Your task to perform on an android device: Empty the shopping cart on newegg. Image 0: 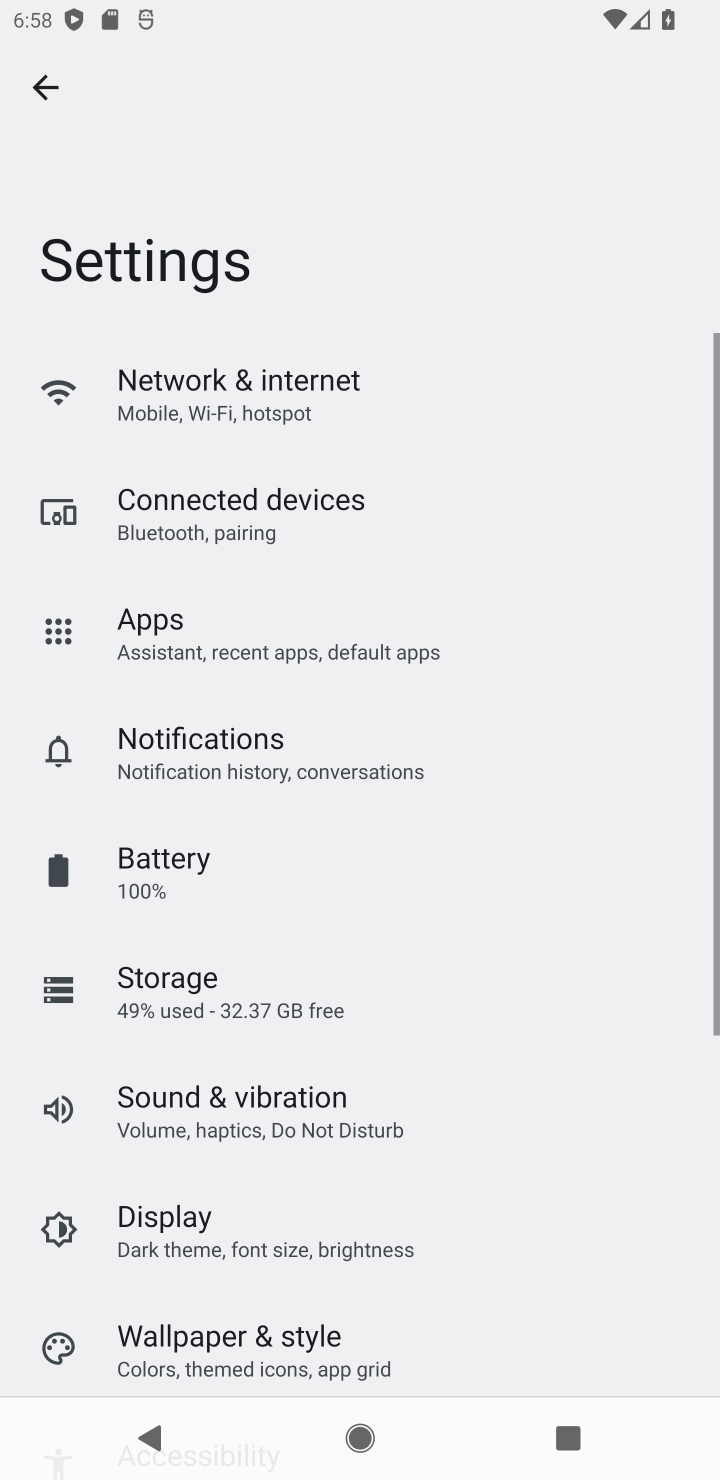
Step 0: press home button
Your task to perform on an android device: Empty the shopping cart on newegg. Image 1: 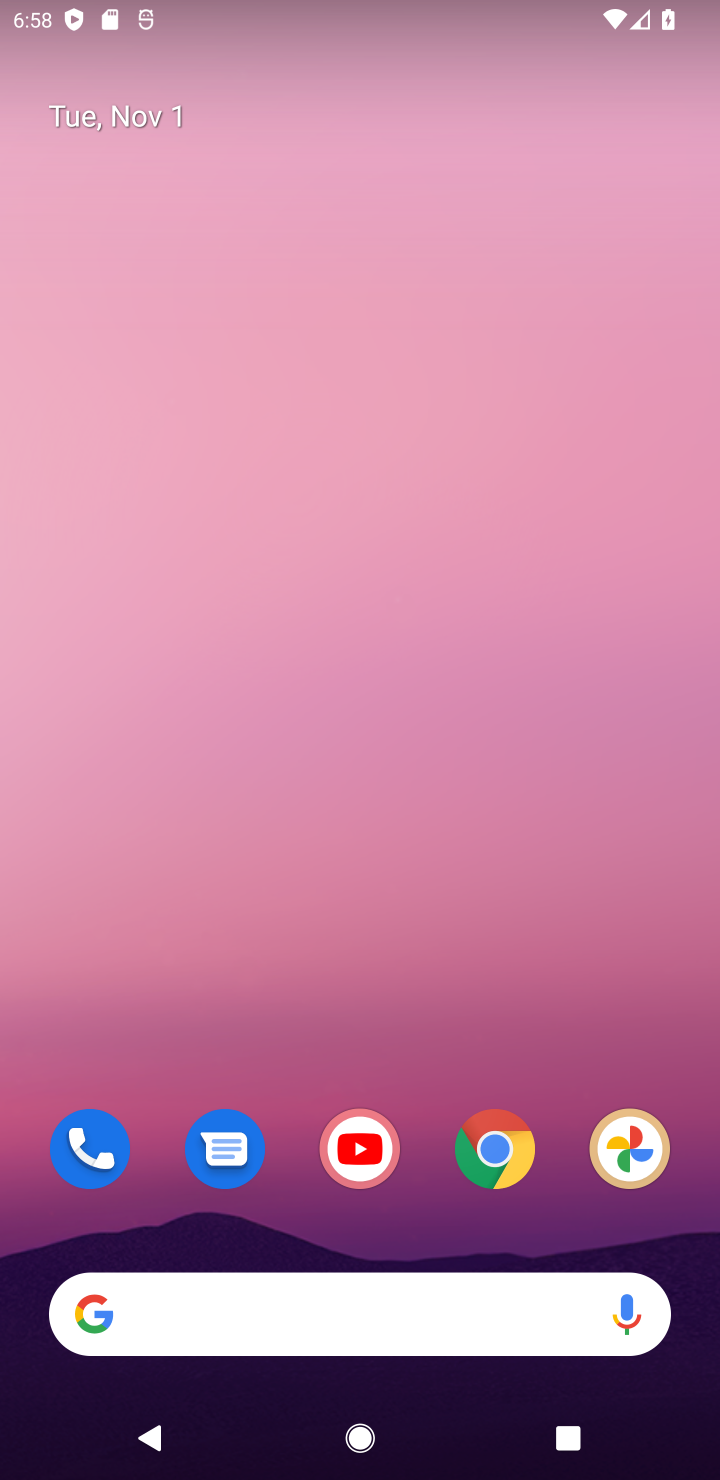
Step 1: drag from (461, 1237) to (486, 448)
Your task to perform on an android device: Empty the shopping cart on newegg. Image 2: 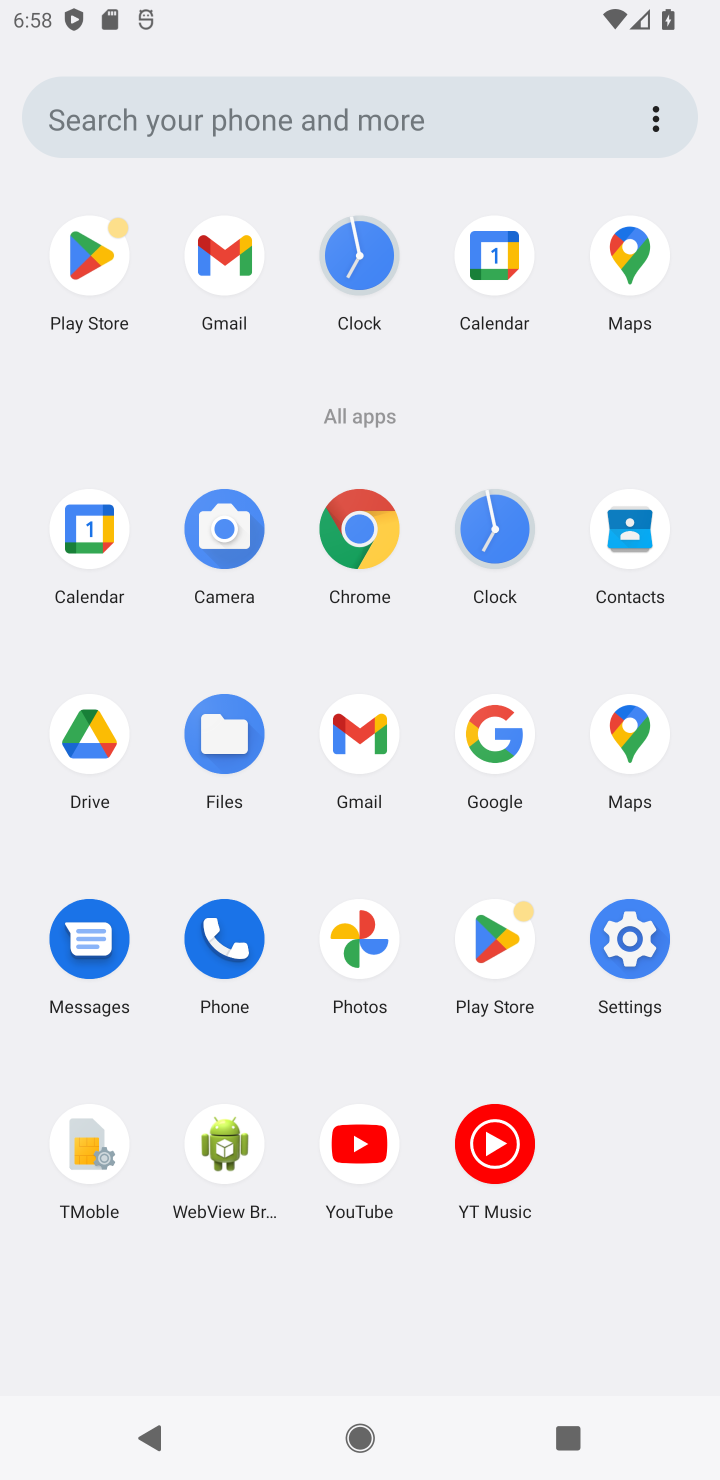
Step 2: click (363, 529)
Your task to perform on an android device: Empty the shopping cart on newegg. Image 3: 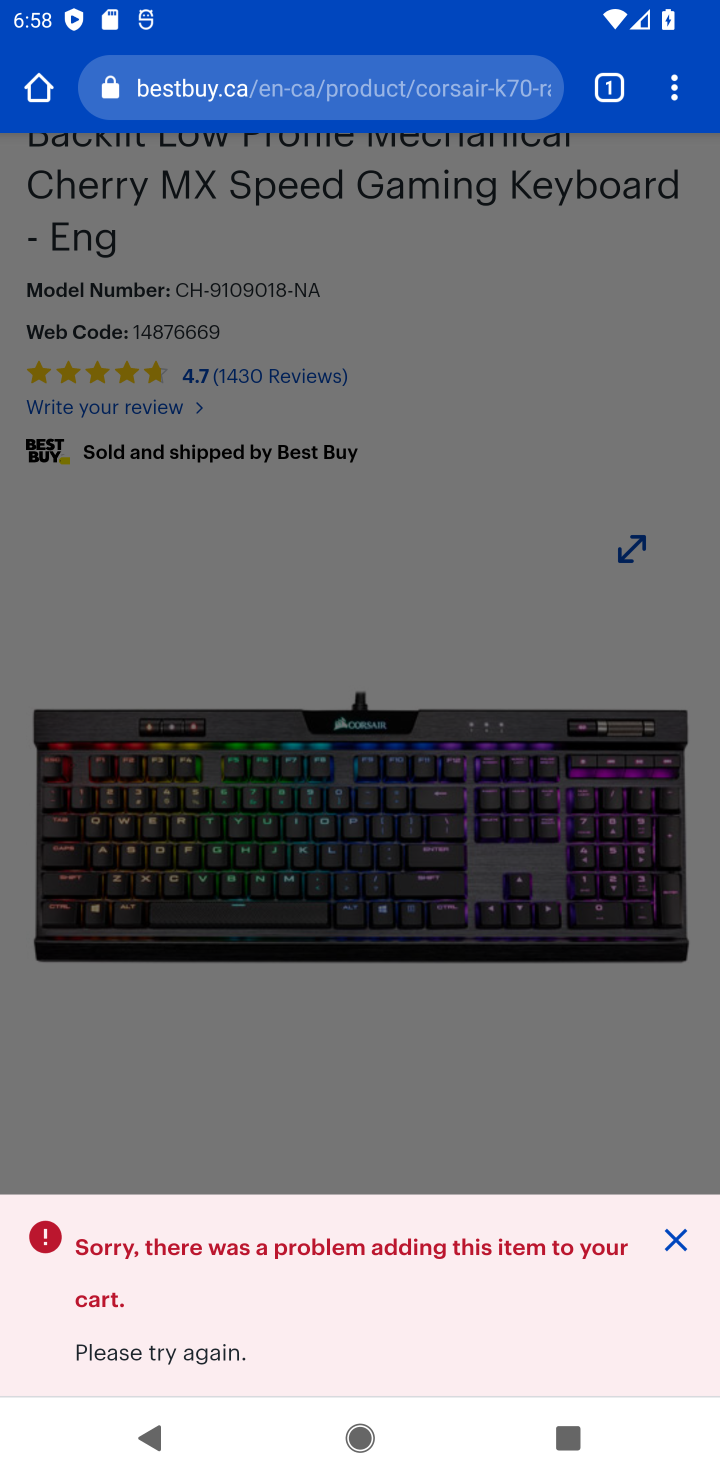
Step 3: click (456, 78)
Your task to perform on an android device: Empty the shopping cart on newegg. Image 4: 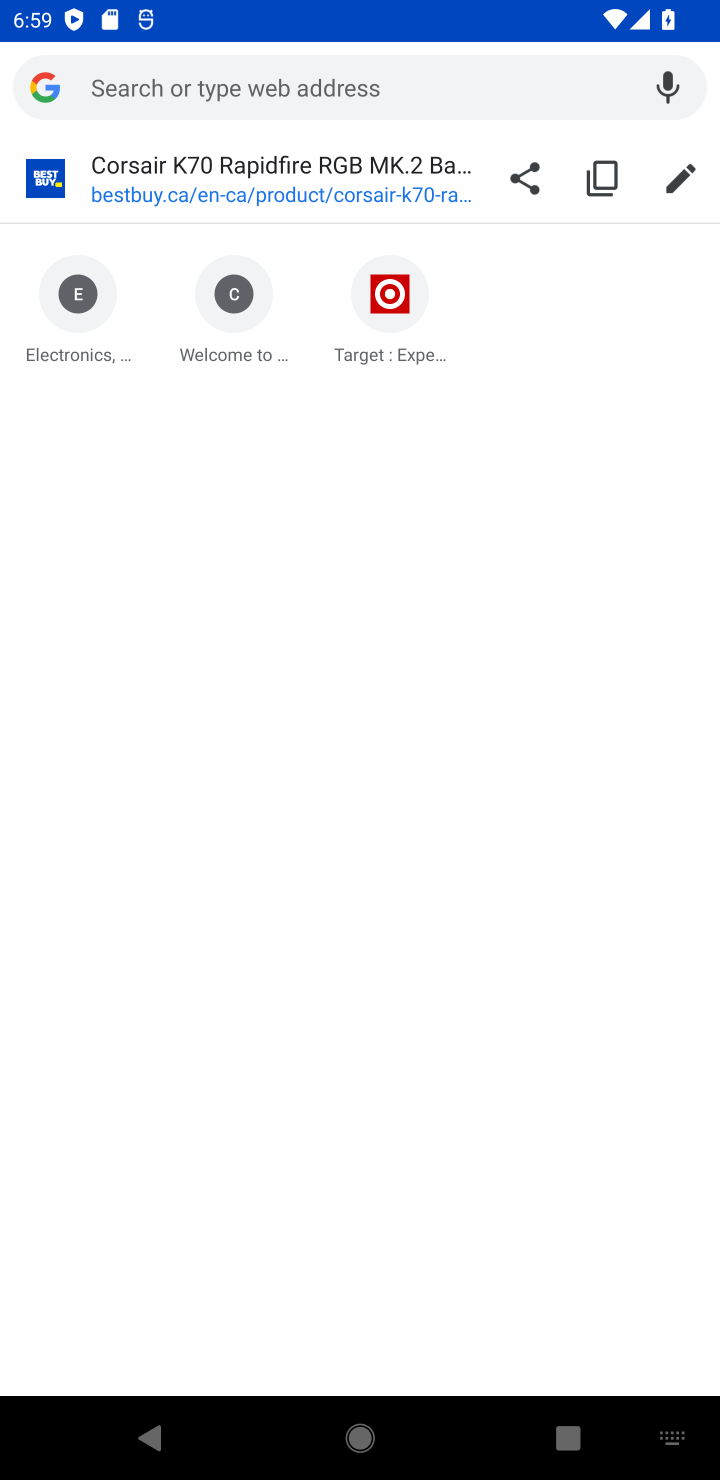
Step 4: type "newegg.com"
Your task to perform on an android device: Empty the shopping cart on newegg. Image 5: 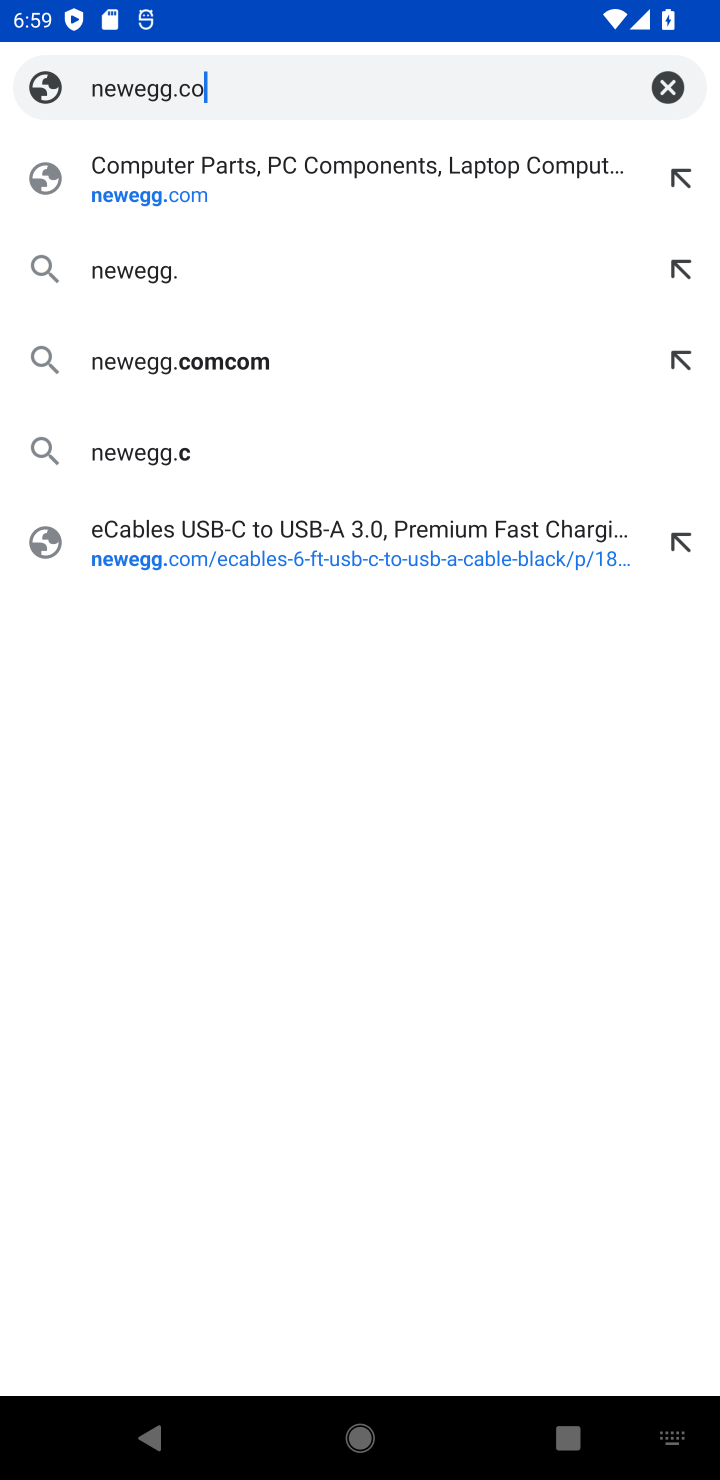
Step 5: press enter
Your task to perform on an android device: Empty the shopping cart on newegg. Image 6: 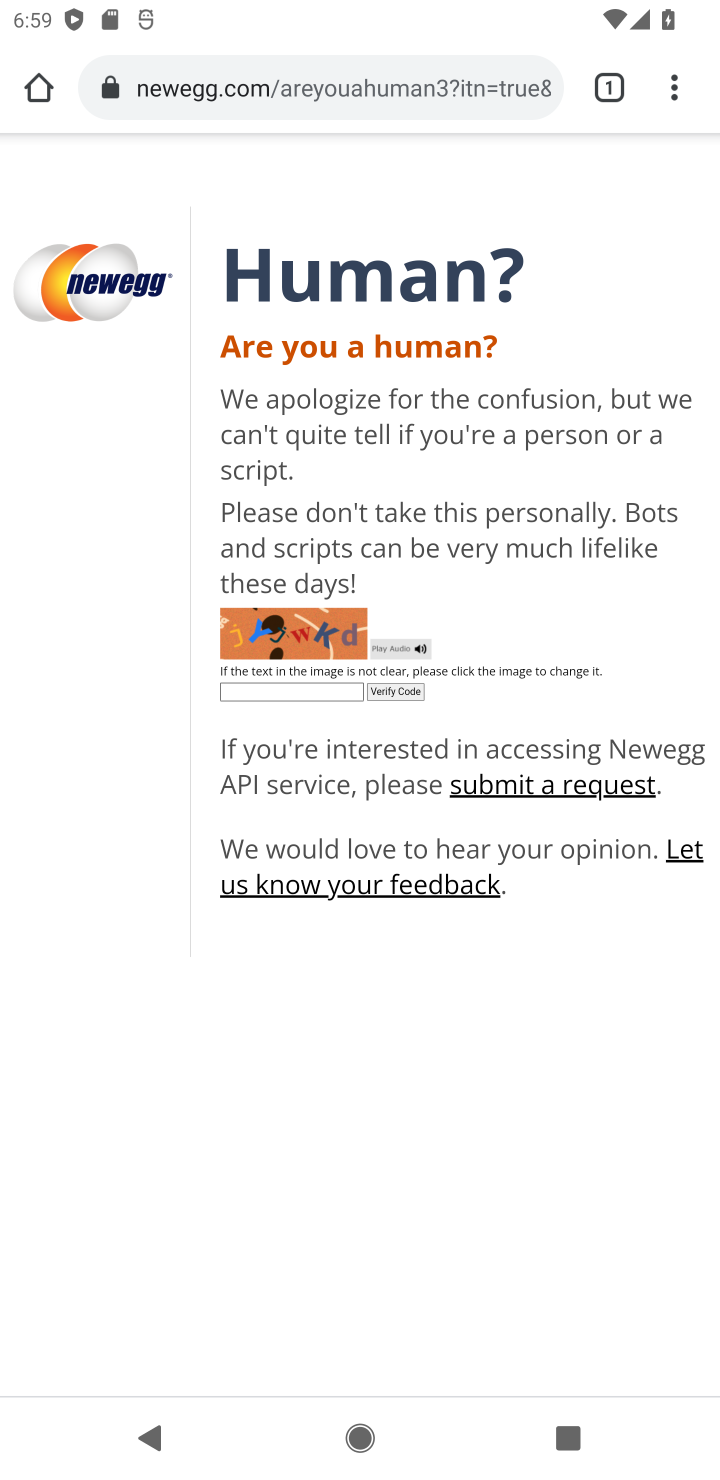
Step 6: click (304, 689)
Your task to perform on an android device: Empty the shopping cart on newegg. Image 7: 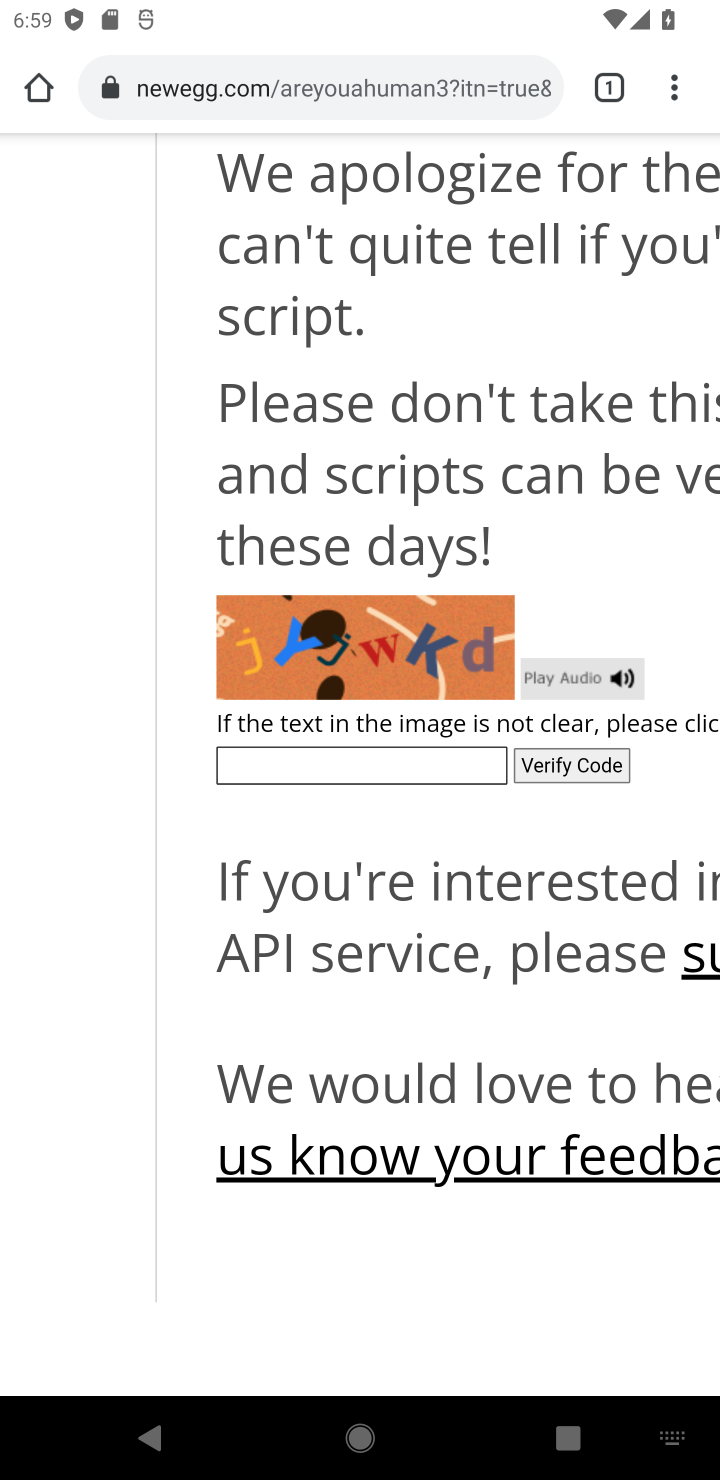
Step 7: type "jYjwKd"
Your task to perform on an android device: Empty the shopping cart on newegg. Image 8: 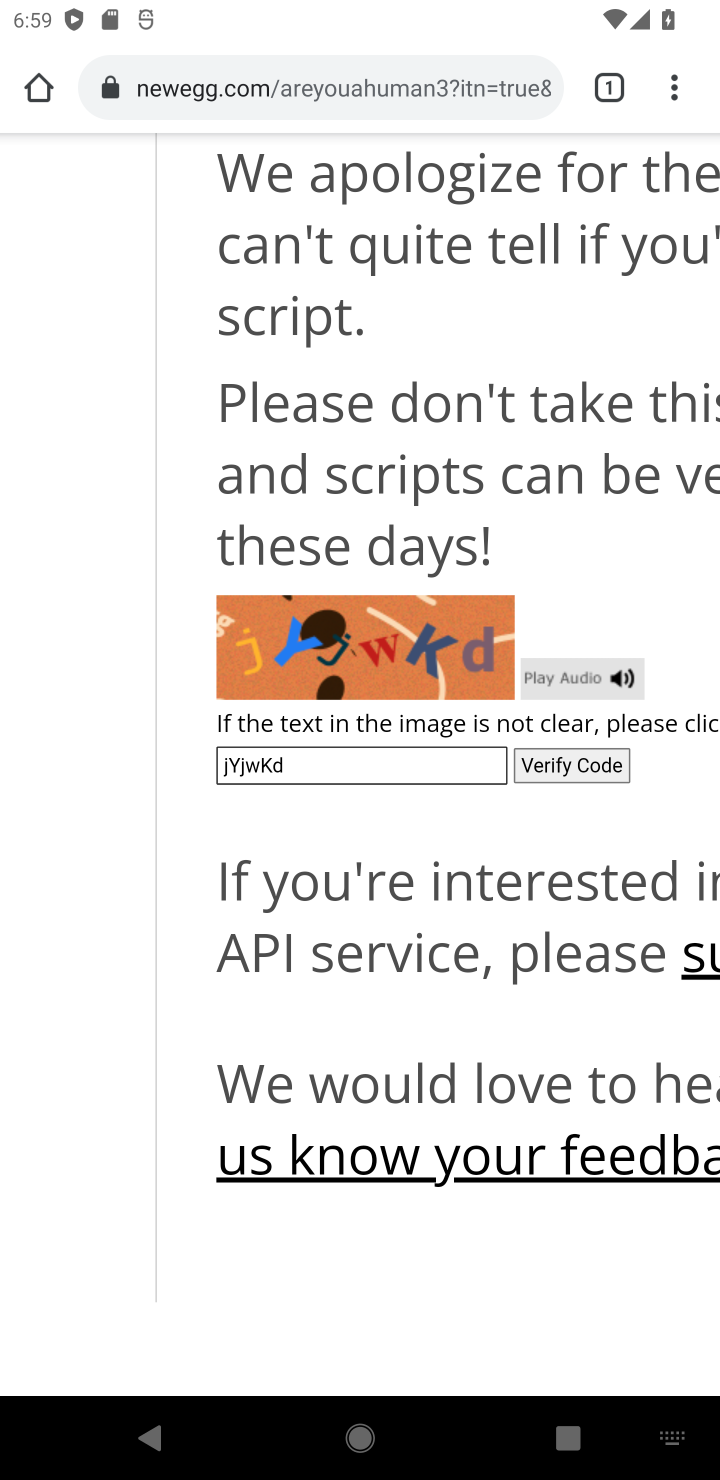
Step 8: click (570, 773)
Your task to perform on an android device: Empty the shopping cart on newegg. Image 9: 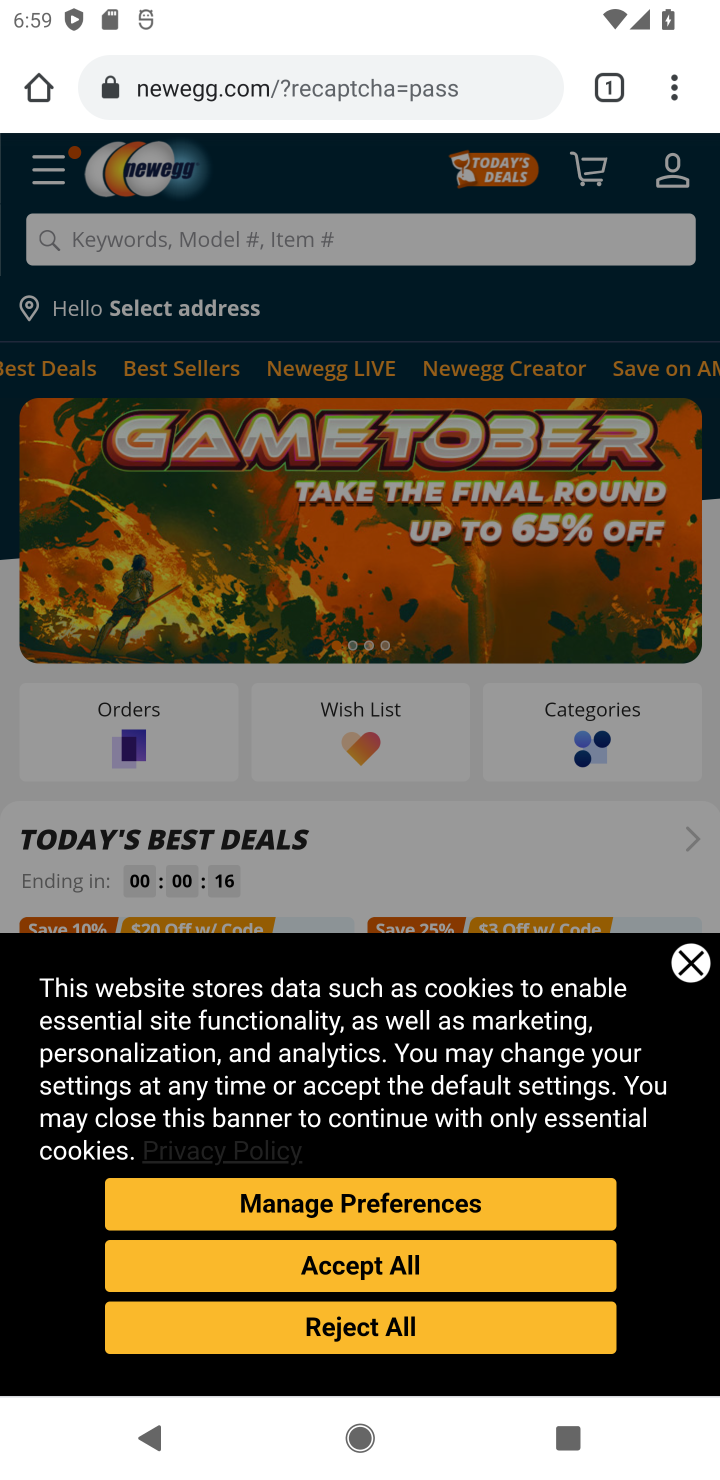
Step 9: click (589, 172)
Your task to perform on an android device: Empty the shopping cart on newegg. Image 10: 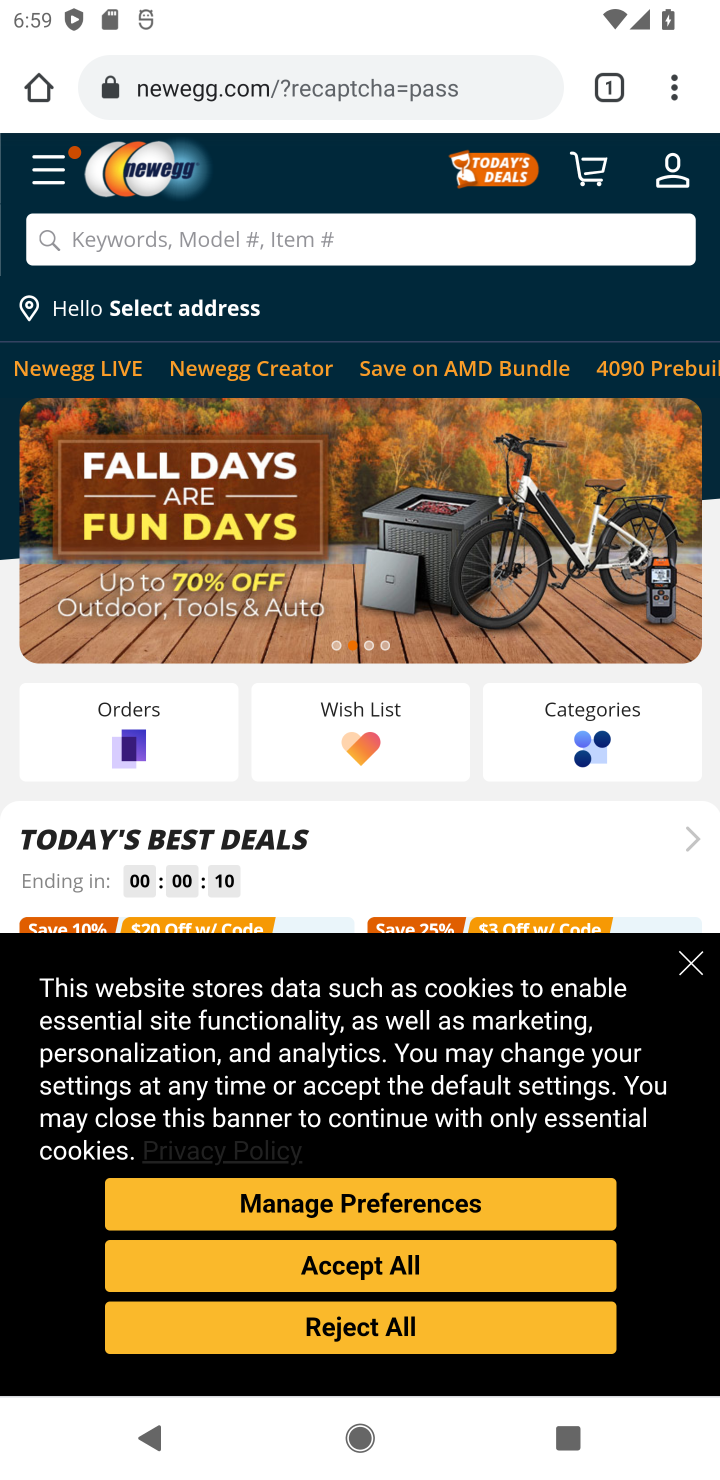
Step 10: click (587, 162)
Your task to perform on an android device: Empty the shopping cart on newegg. Image 11: 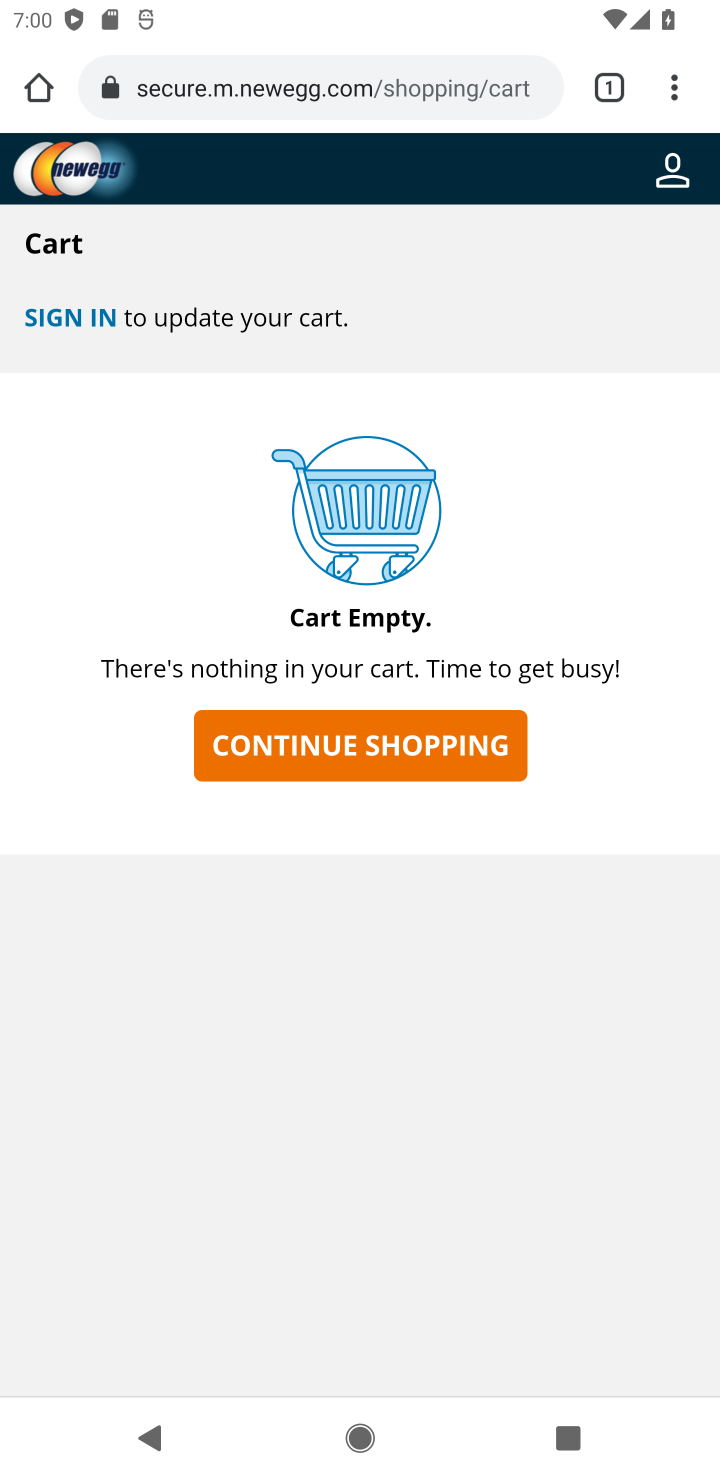
Step 11: task complete